Your task to perform on an android device: Open Google Chrome Image 0: 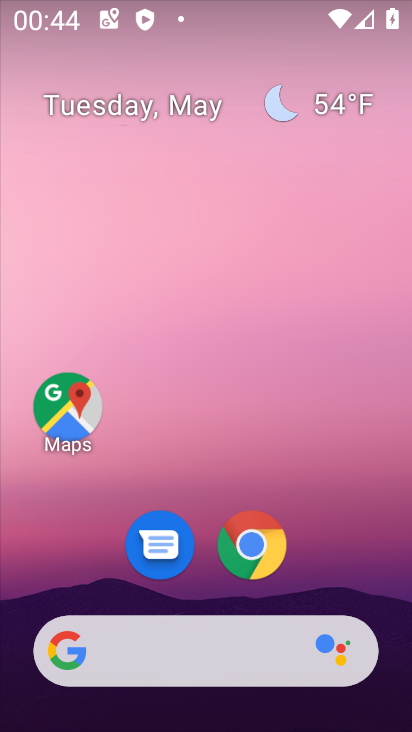
Step 0: click (270, 560)
Your task to perform on an android device: Open Google Chrome Image 1: 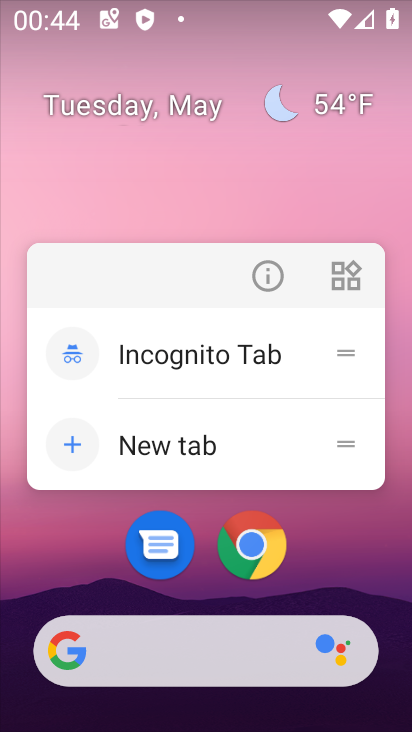
Step 1: click (277, 528)
Your task to perform on an android device: Open Google Chrome Image 2: 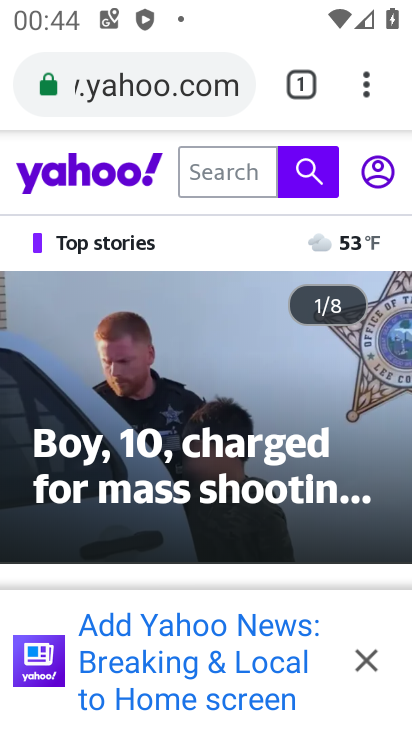
Step 2: task complete